Your task to perform on an android device: clear history in the chrome app Image 0: 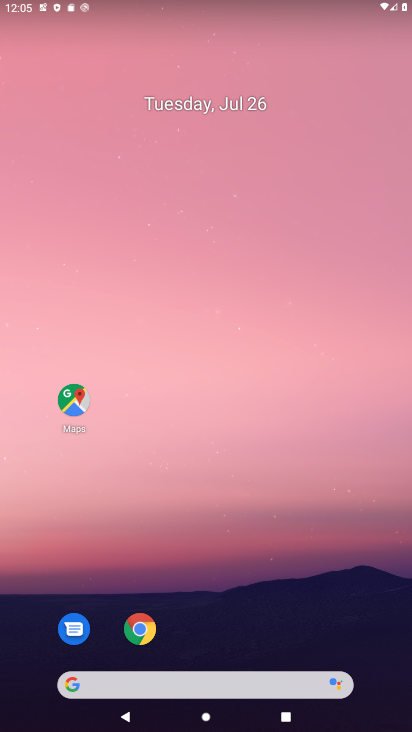
Step 0: click (132, 627)
Your task to perform on an android device: clear history in the chrome app Image 1: 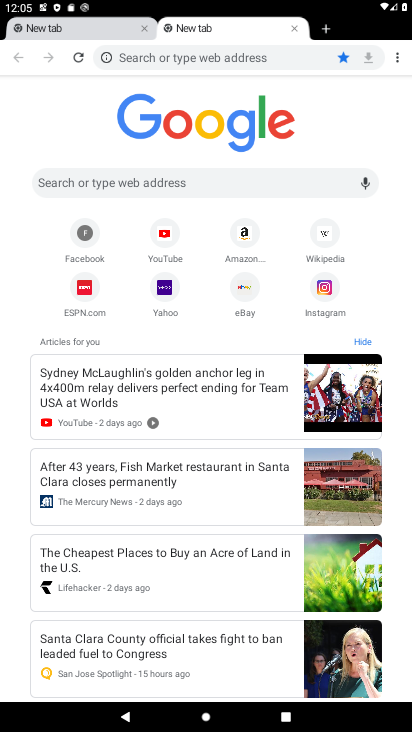
Step 1: click (396, 56)
Your task to perform on an android device: clear history in the chrome app Image 2: 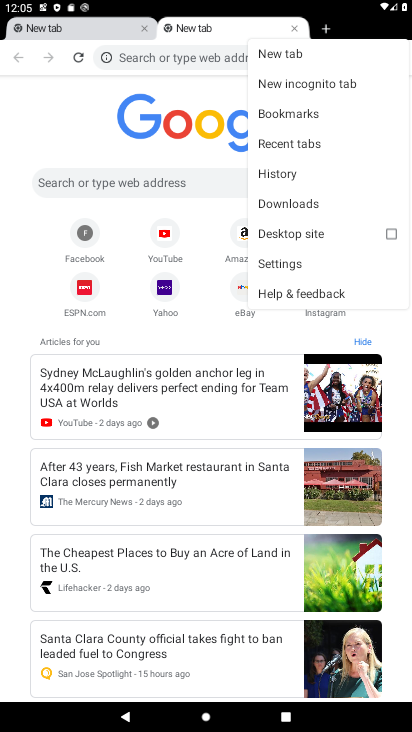
Step 2: click (324, 171)
Your task to perform on an android device: clear history in the chrome app Image 3: 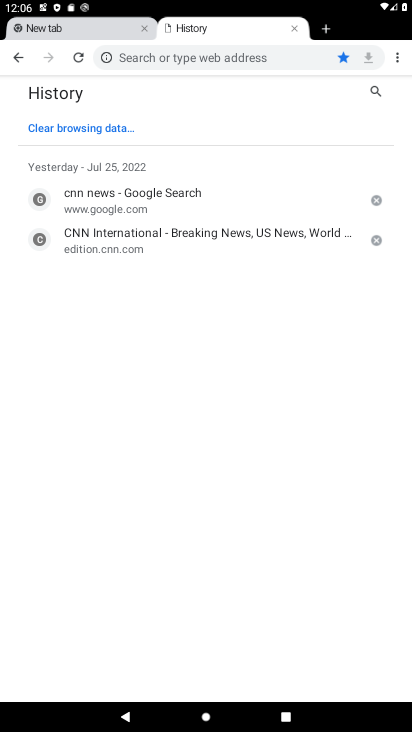
Step 3: click (104, 122)
Your task to perform on an android device: clear history in the chrome app Image 4: 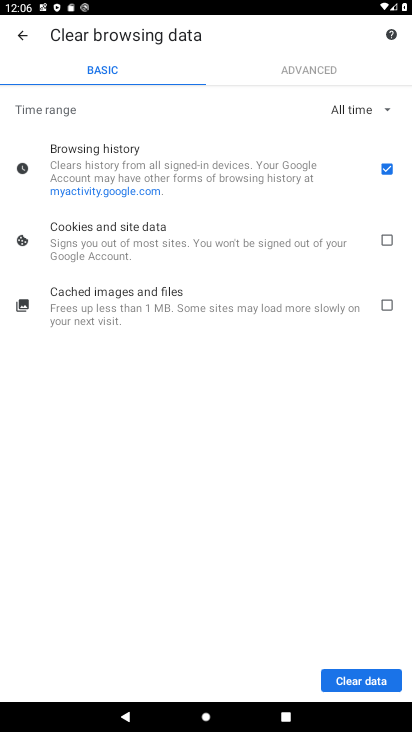
Step 4: click (382, 681)
Your task to perform on an android device: clear history in the chrome app Image 5: 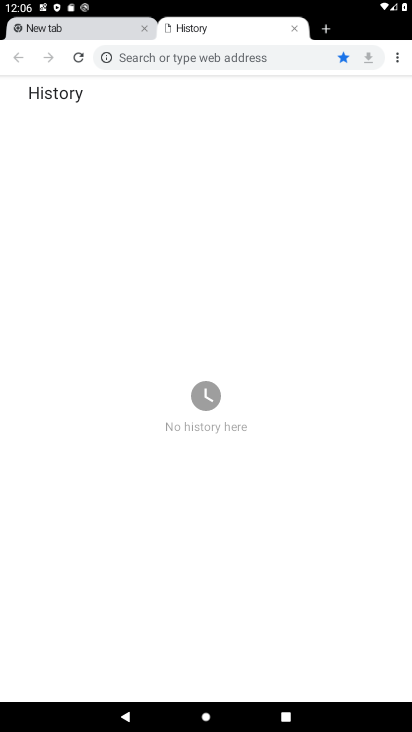
Step 5: task complete